Your task to perform on an android device: Open the Play Movies app and select the watchlist tab. Image 0: 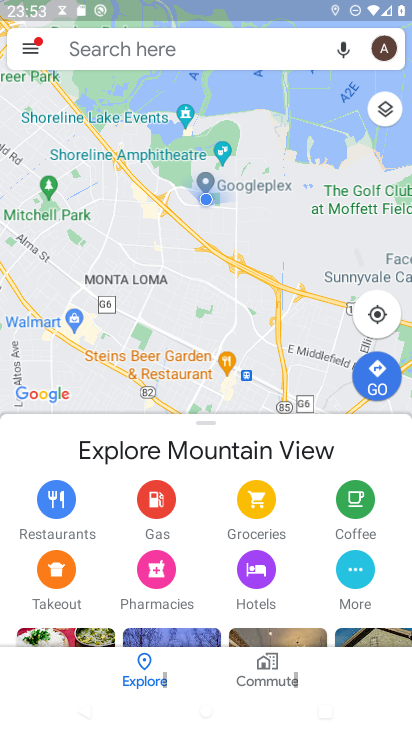
Step 0: press home button
Your task to perform on an android device: Open the Play Movies app and select the watchlist tab. Image 1: 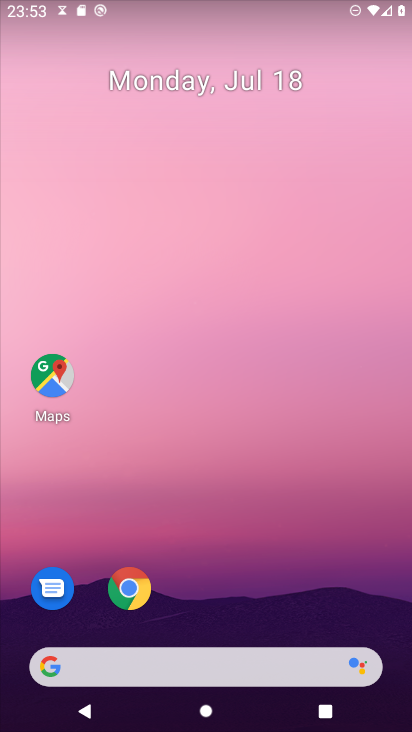
Step 1: drag from (279, 557) to (345, 130)
Your task to perform on an android device: Open the Play Movies app and select the watchlist tab. Image 2: 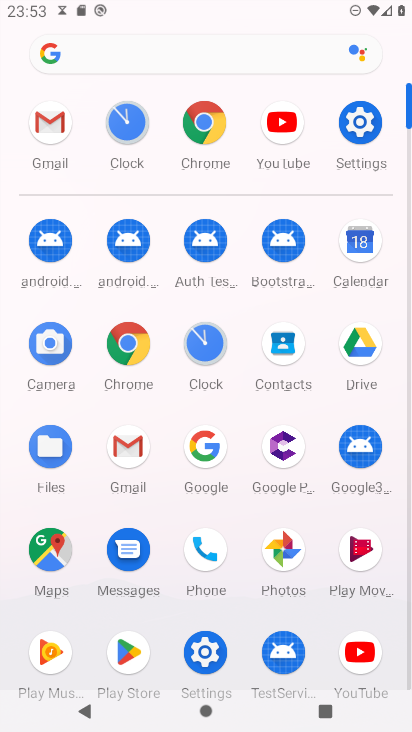
Step 2: click (353, 545)
Your task to perform on an android device: Open the Play Movies app and select the watchlist tab. Image 3: 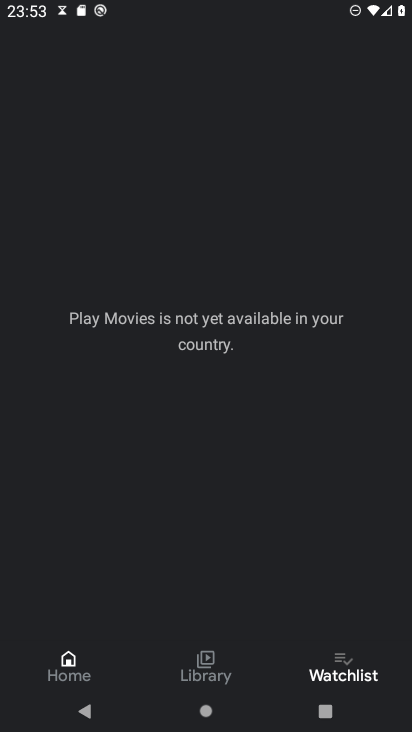
Step 3: task complete